Your task to perform on an android device: Is it going to rain this weekend? Image 0: 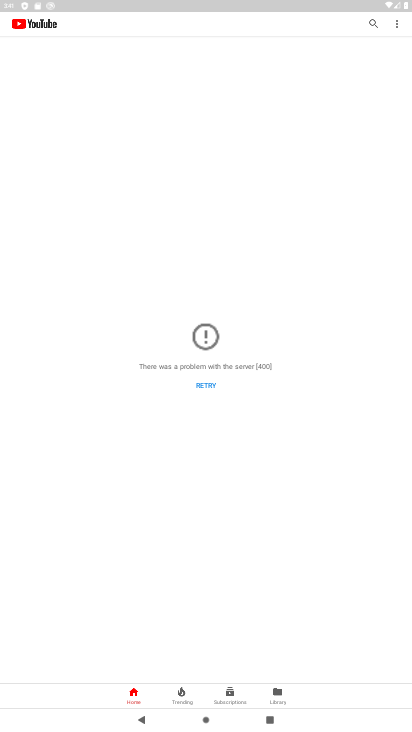
Step 0: press home button
Your task to perform on an android device: Is it going to rain this weekend? Image 1: 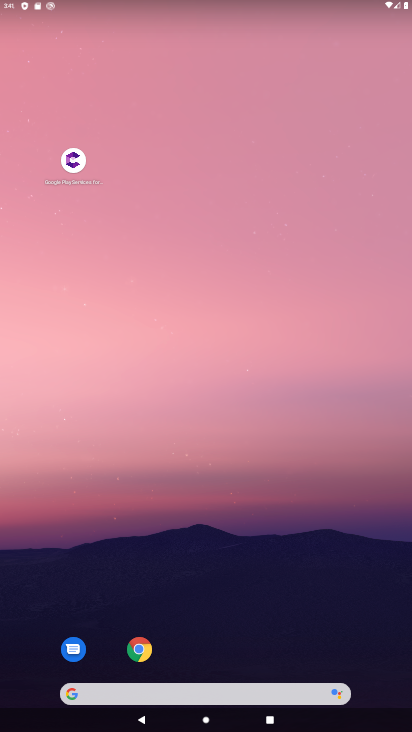
Step 1: click (145, 646)
Your task to perform on an android device: Is it going to rain this weekend? Image 2: 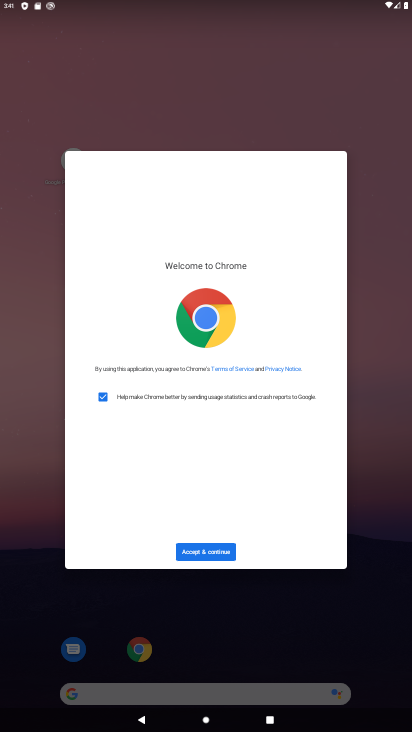
Step 2: click (208, 551)
Your task to perform on an android device: Is it going to rain this weekend? Image 3: 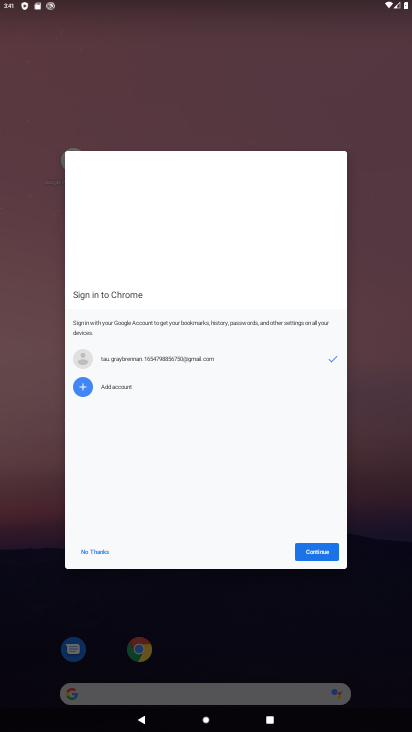
Step 3: click (321, 549)
Your task to perform on an android device: Is it going to rain this weekend? Image 4: 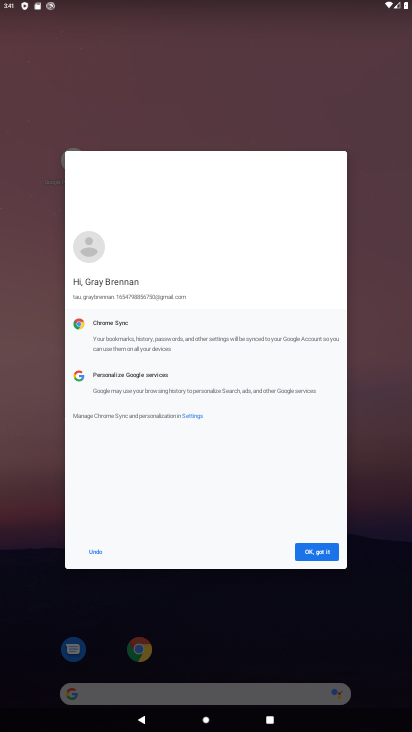
Step 4: click (321, 553)
Your task to perform on an android device: Is it going to rain this weekend? Image 5: 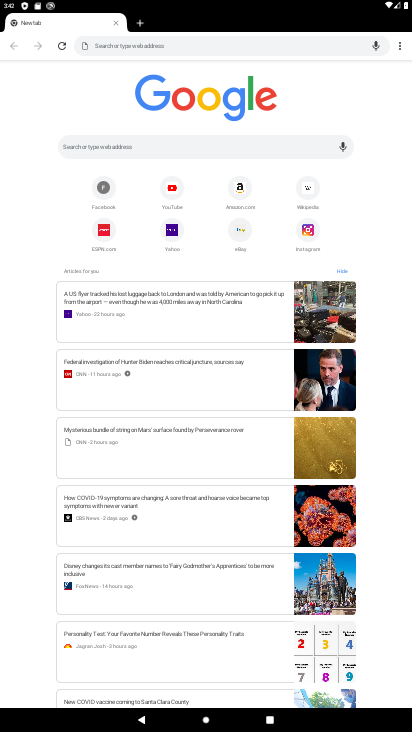
Step 5: type "Is it going to rain this weekend?"
Your task to perform on an android device: Is it going to rain this weekend? Image 6: 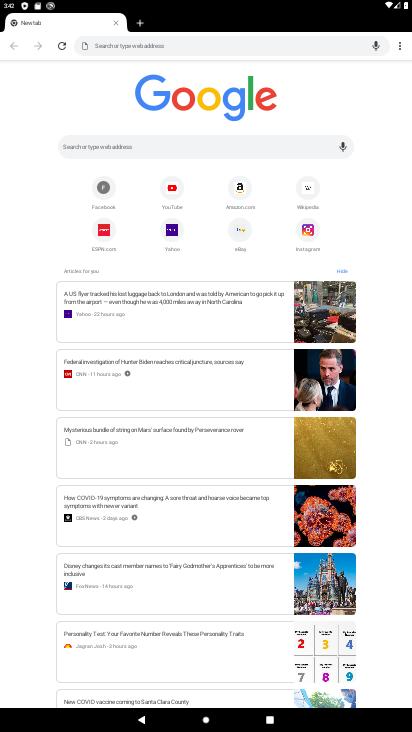
Step 6: click (308, 47)
Your task to perform on an android device: Is it going to rain this weekend? Image 7: 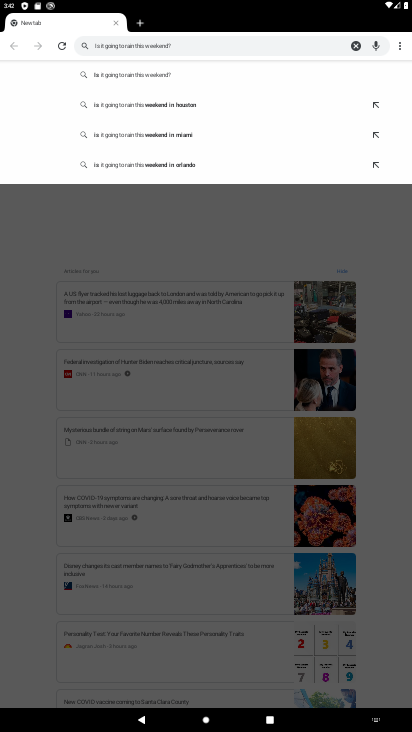
Step 7: click (118, 71)
Your task to perform on an android device: Is it going to rain this weekend? Image 8: 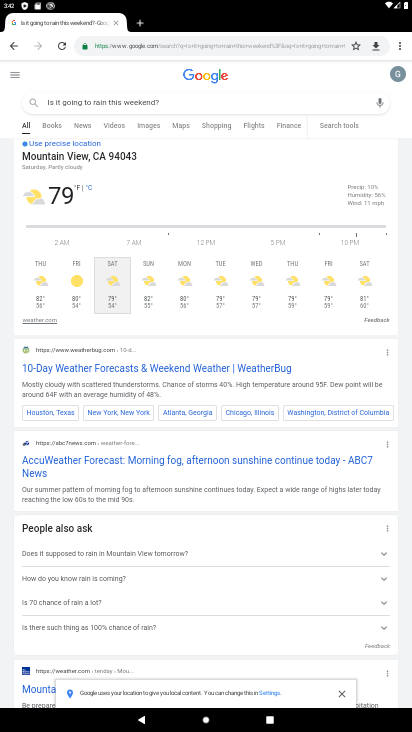
Step 8: task complete